Your task to perform on an android device: Open Wikipedia Image 0: 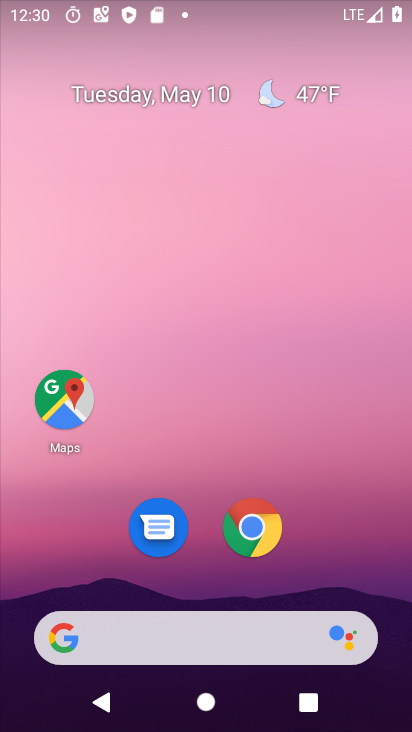
Step 0: drag from (274, 582) to (322, 216)
Your task to perform on an android device: Open Wikipedia Image 1: 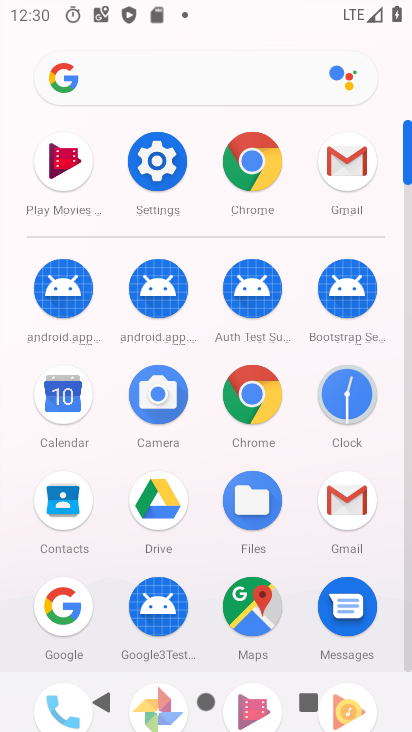
Step 1: click (270, 395)
Your task to perform on an android device: Open Wikipedia Image 2: 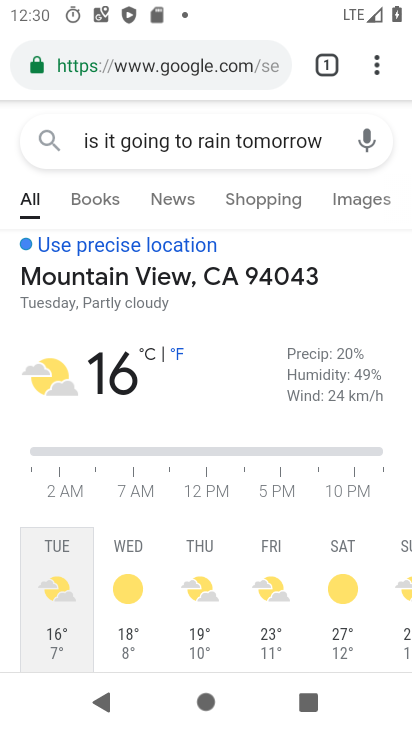
Step 2: click (235, 75)
Your task to perform on an android device: Open Wikipedia Image 3: 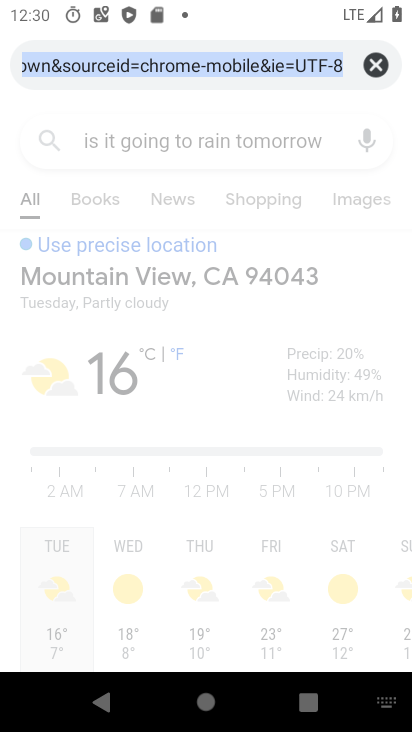
Step 3: click (376, 67)
Your task to perform on an android device: Open Wikipedia Image 4: 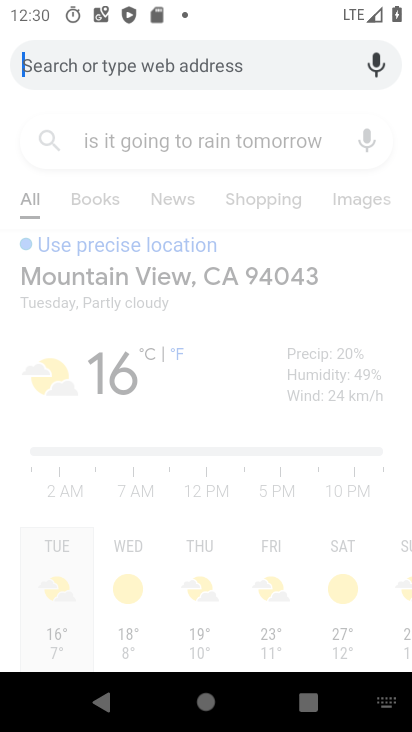
Step 4: type "wikipedia"
Your task to perform on an android device: Open Wikipedia Image 5: 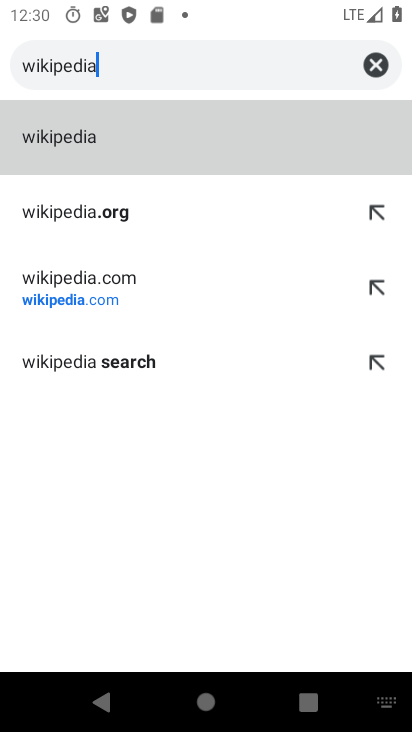
Step 5: click (60, 127)
Your task to perform on an android device: Open Wikipedia Image 6: 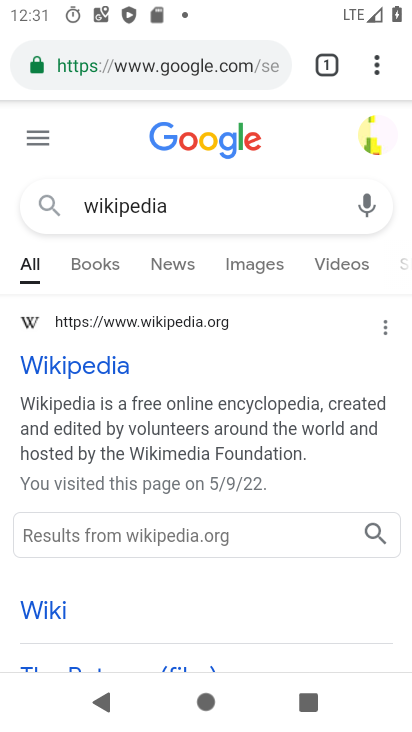
Step 6: click (132, 373)
Your task to perform on an android device: Open Wikipedia Image 7: 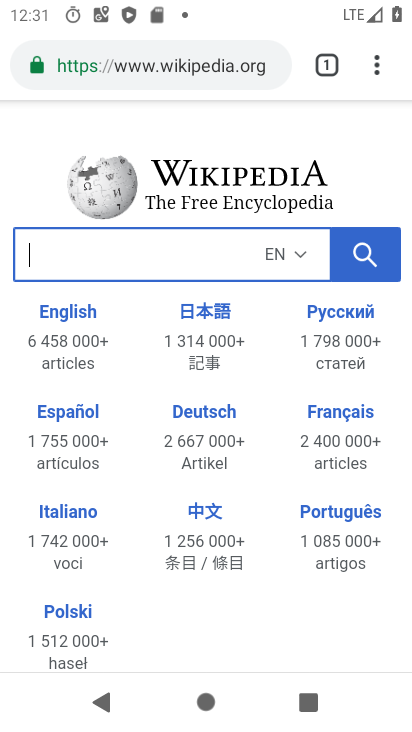
Step 7: click (71, 305)
Your task to perform on an android device: Open Wikipedia Image 8: 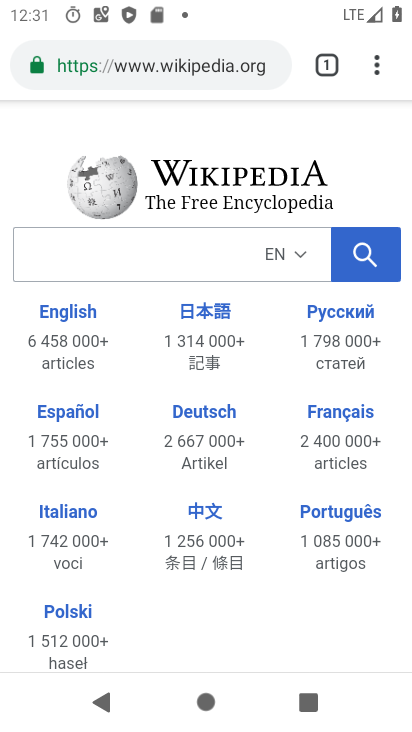
Step 8: click (75, 321)
Your task to perform on an android device: Open Wikipedia Image 9: 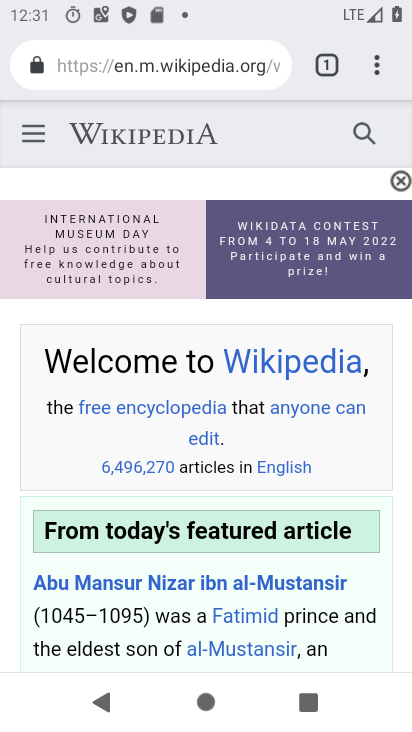
Step 9: task complete